Your task to perform on an android device: turn vacation reply on in the gmail app Image 0: 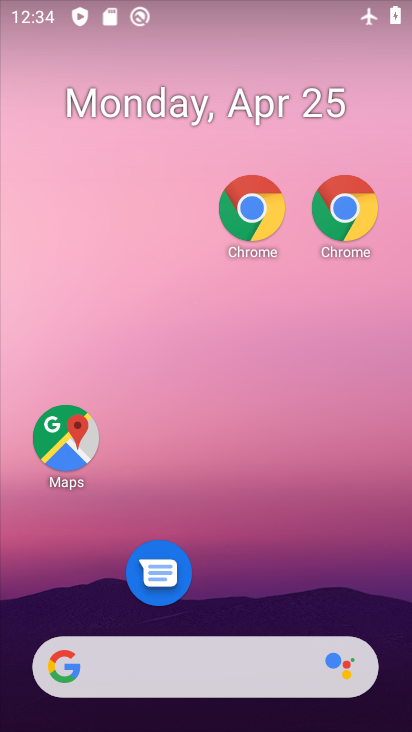
Step 0: drag from (257, 646) to (212, 90)
Your task to perform on an android device: turn vacation reply on in the gmail app Image 1: 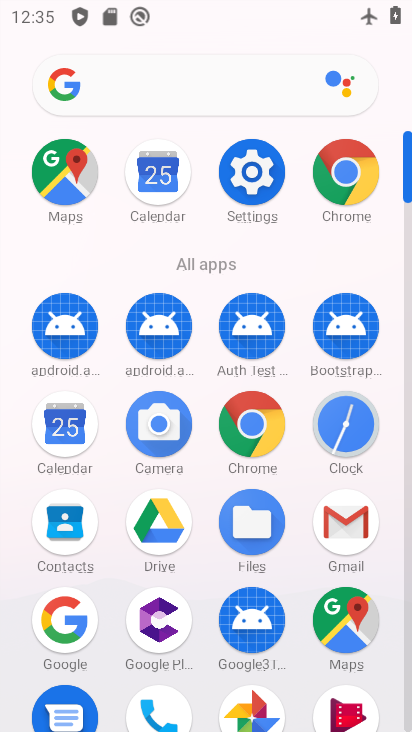
Step 1: click (344, 535)
Your task to perform on an android device: turn vacation reply on in the gmail app Image 2: 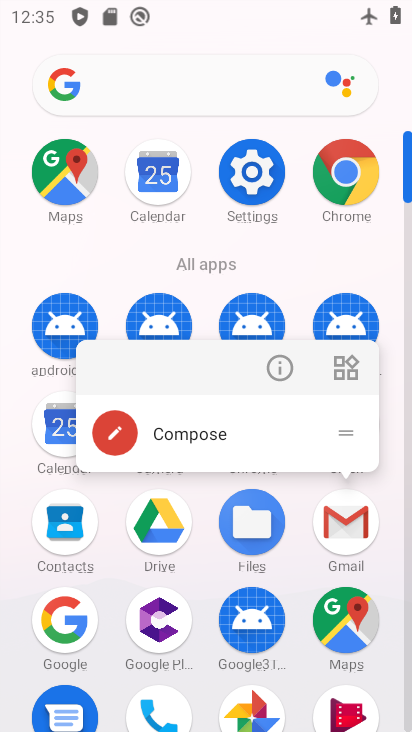
Step 2: click (356, 523)
Your task to perform on an android device: turn vacation reply on in the gmail app Image 3: 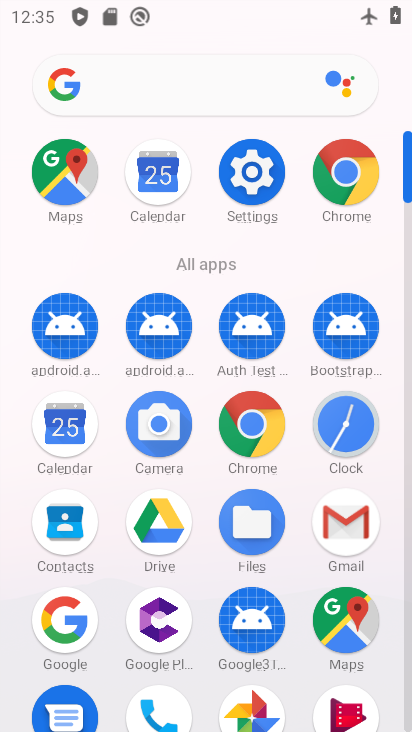
Step 3: click (342, 529)
Your task to perform on an android device: turn vacation reply on in the gmail app Image 4: 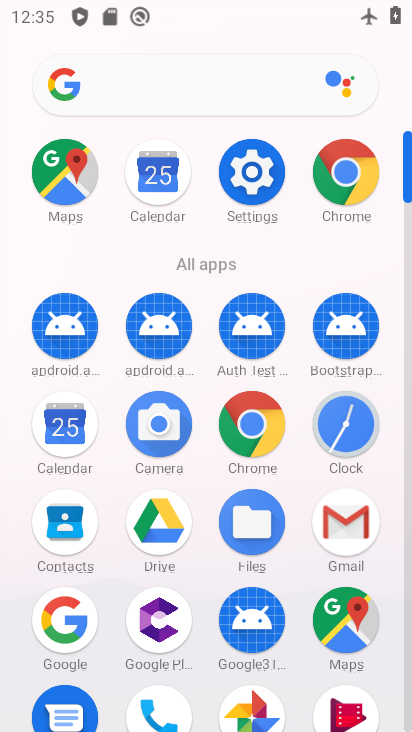
Step 4: click (344, 517)
Your task to perform on an android device: turn vacation reply on in the gmail app Image 5: 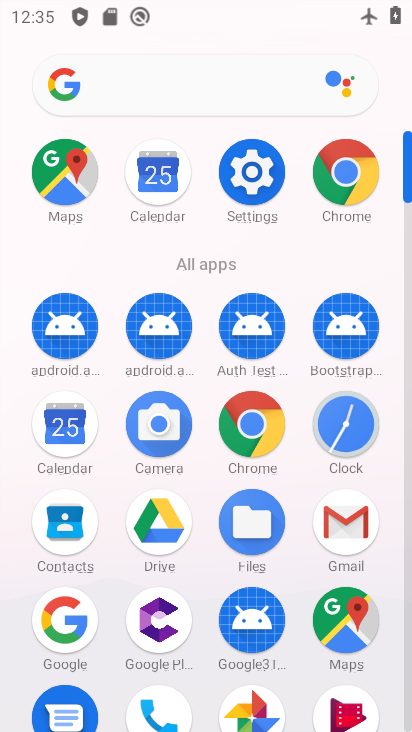
Step 5: click (342, 516)
Your task to perform on an android device: turn vacation reply on in the gmail app Image 6: 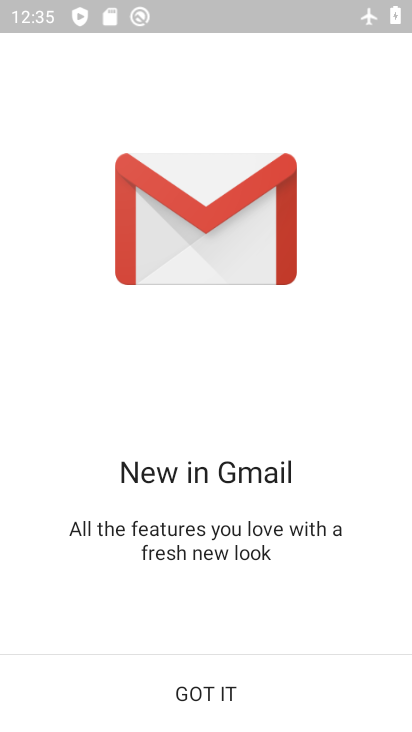
Step 6: click (202, 690)
Your task to perform on an android device: turn vacation reply on in the gmail app Image 7: 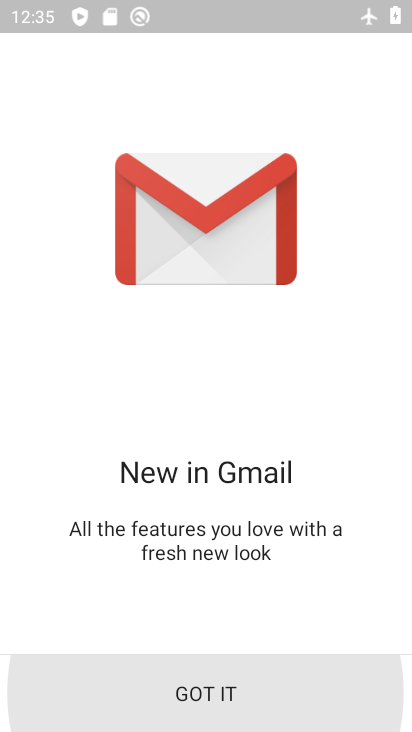
Step 7: click (199, 697)
Your task to perform on an android device: turn vacation reply on in the gmail app Image 8: 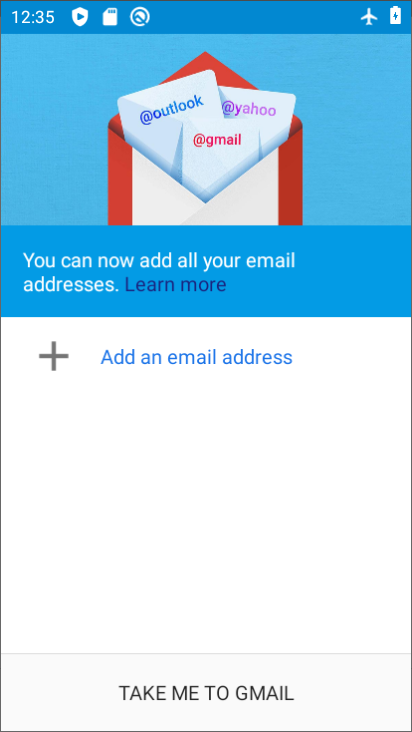
Step 8: click (209, 692)
Your task to perform on an android device: turn vacation reply on in the gmail app Image 9: 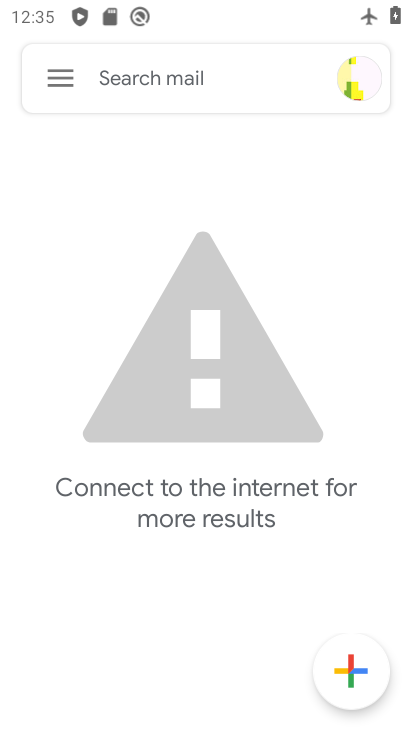
Step 9: drag from (61, 78) to (91, 163)
Your task to perform on an android device: turn vacation reply on in the gmail app Image 10: 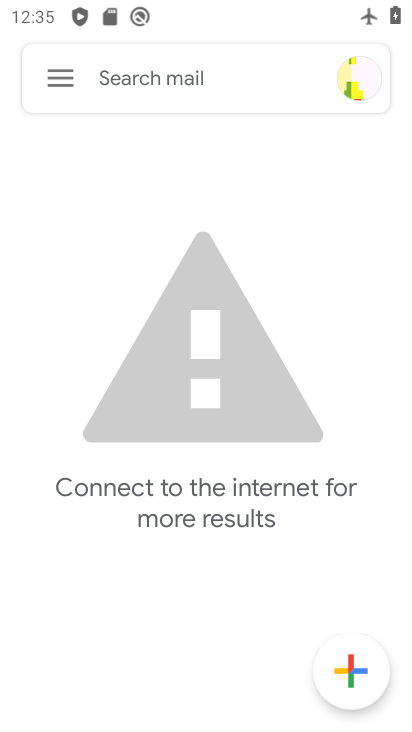
Step 10: click (55, 72)
Your task to perform on an android device: turn vacation reply on in the gmail app Image 11: 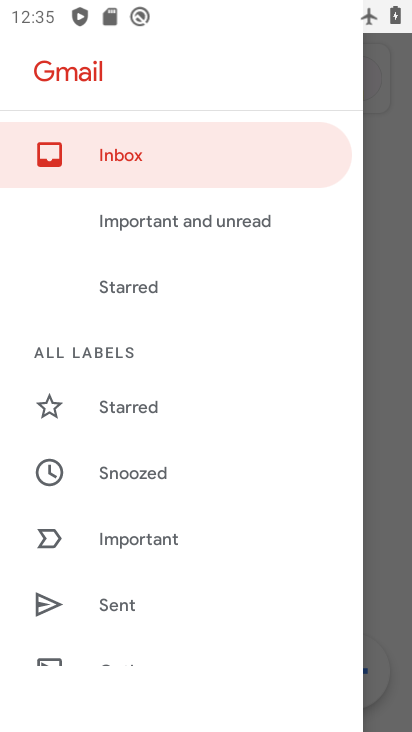
Step 11: drag from (191, 587) to (142, 193)
Your task to perform on an android device: turn vacation reply on in the gmail app Image 12: 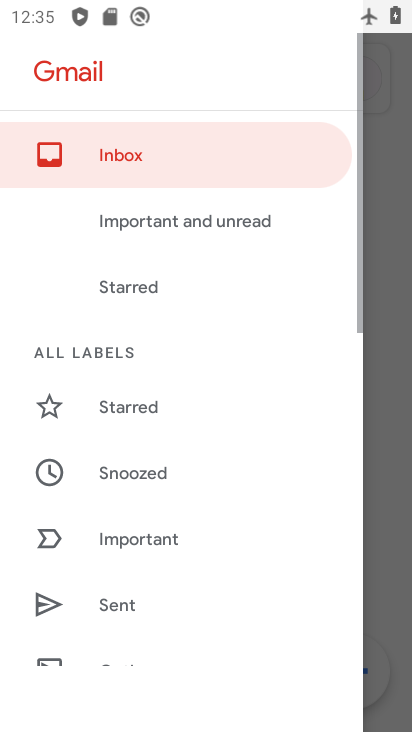
Step 12: drag from (159, 474) to (154, 217)
Your task to perform on an android device: turn vacation reply on in the gmail app Image 13: 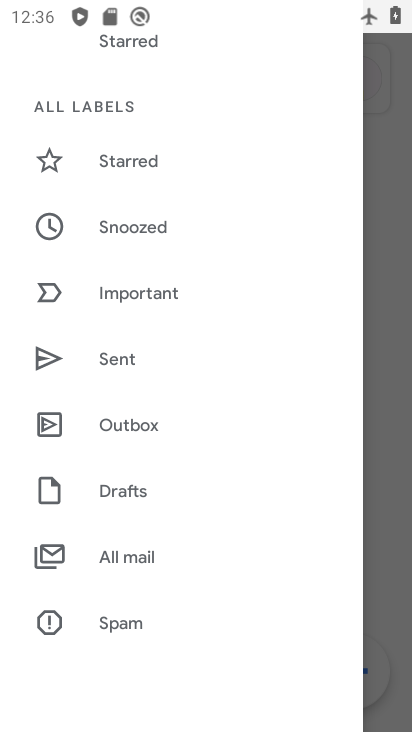
Step 13: drag from (172, 534) to (145, 70)
Your task to perform on an android device: turn vacation reply on in the gmail app Image 14: 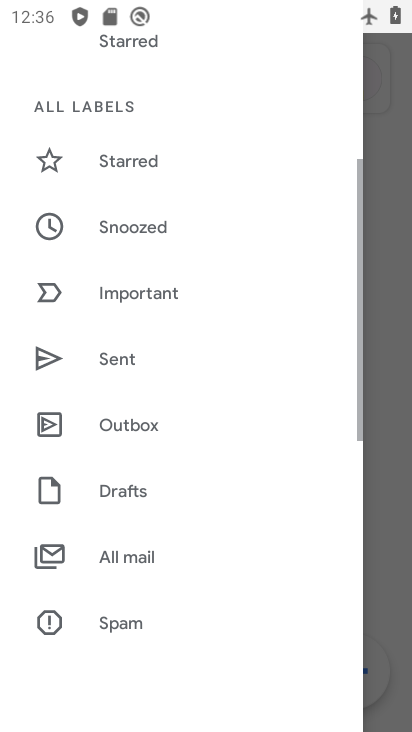
Step 14: drag from (171, 323) to (201, 60)
Your task to perform on an android device: turn vacation reply on in the gmail app Image 15: 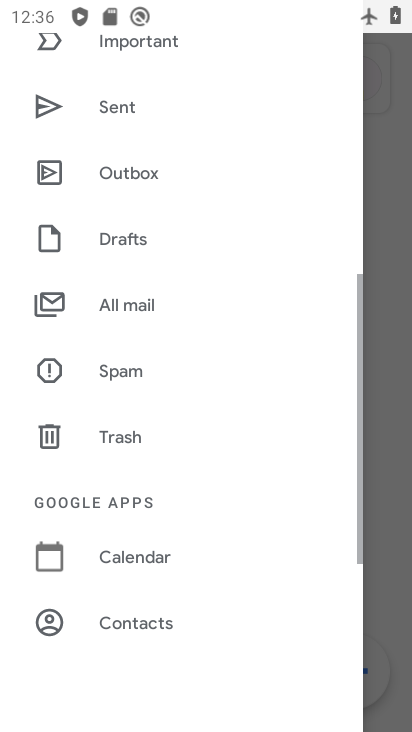
Step 15: drag from (164, 289) to (164, 28)
Your task to perform on an android device: turn vacation reply on in the gmail app Image 16: 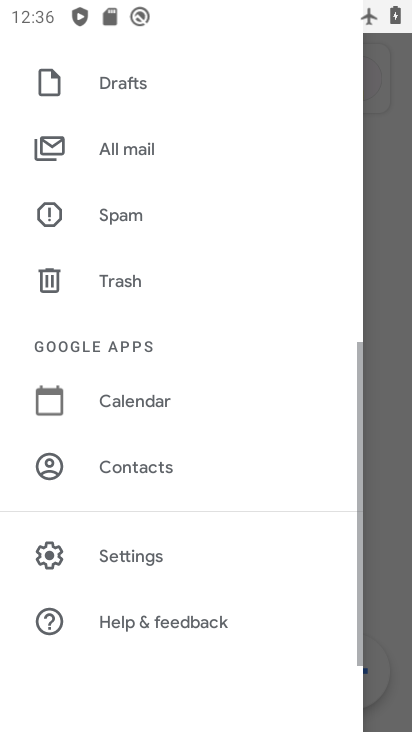
Step 16: drag from (201, 502) to (156, 113)
Your task to perform on an android device: turn vacation reply on in the gmail app Image 17: 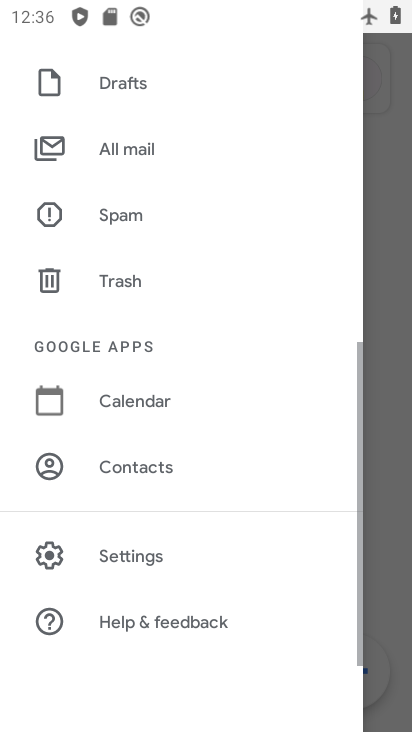
Step 17: drag from (124, 516) to (114, 105)
Your task to perform on an android device: turn vacation reply on in the gmail app Image 18: 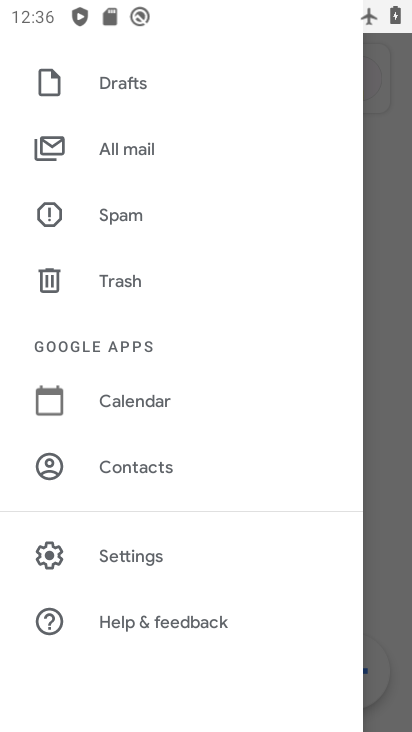
Step 18: click (132, 557)
Your task to perform on an android device: turn vacation reply on in the gmail app Image 19: 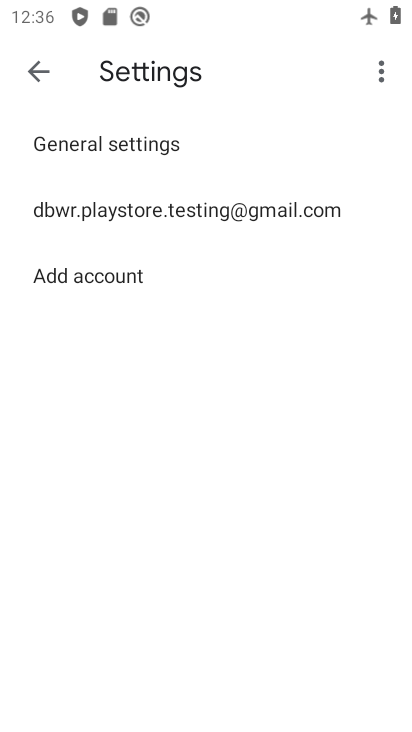
Step 19: click (177, 205)
Your task to perform on an android device: turn vacation reply on in the gmail app Image 20: 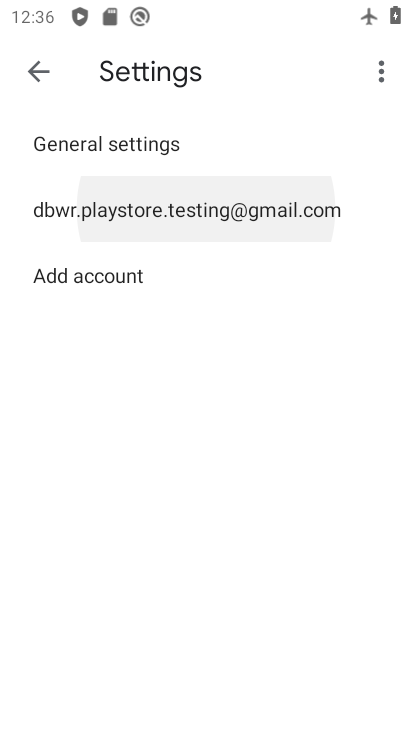
Step 20: click (176, 209)
Your task to perform on an android device: turn vacation reply on in the gmail app Image 21: 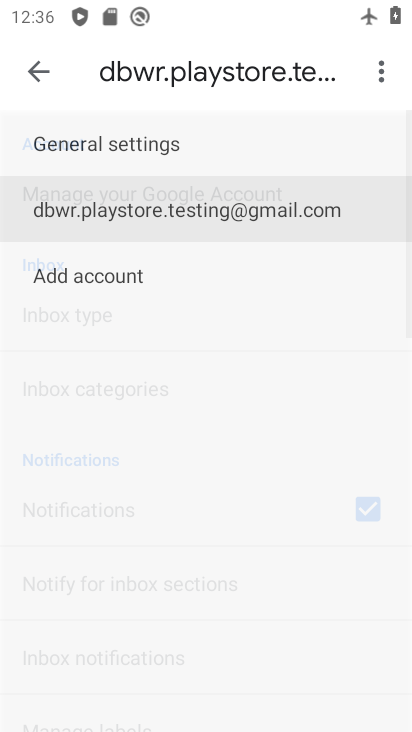
Step 21: click (175, 208)
Your task to perform on an android device: turn vacation reply on in the gmail app Image 22: 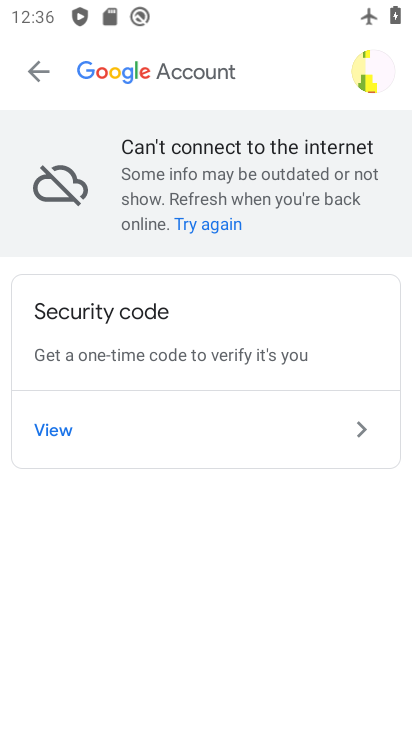
Step 22: click (33, 73)
Your task to perform on an android device: turn vacation reply on in the gmail app Image 23: 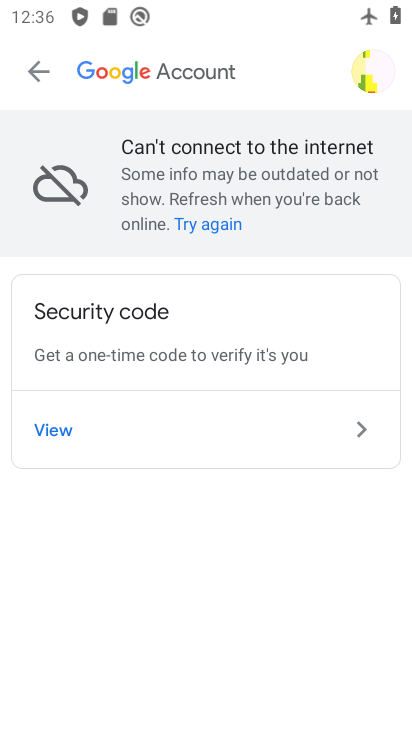
Step 23: click (37, 68)
Your task to perform on an android device: turn vacation reply on in the gmail app Image 24: 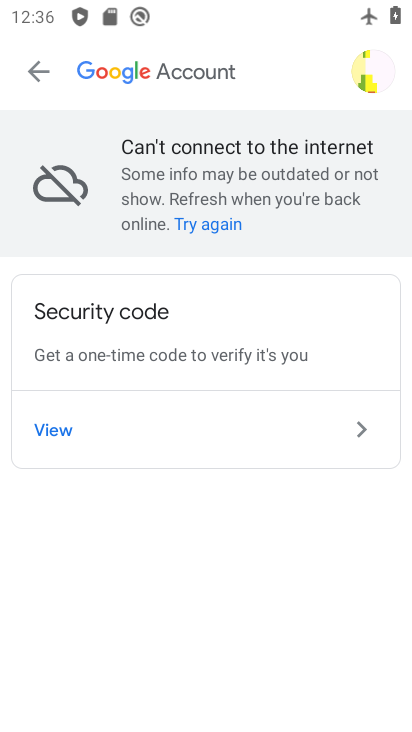
Step 24: click (37, 68)
Your task to perform on an android device: turn vacation reply on in the gmail app Image 25: 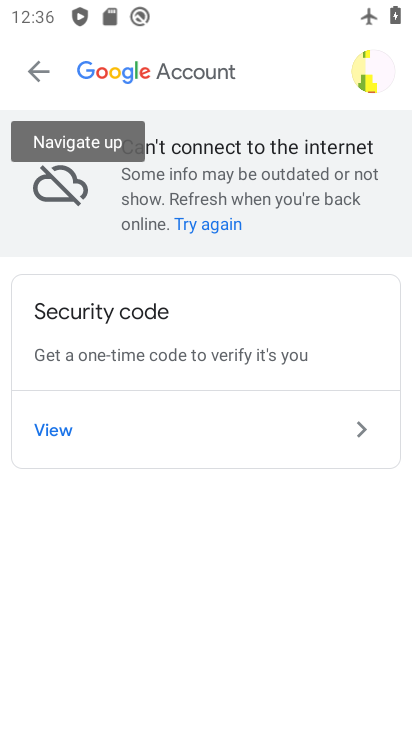
Step 25: click (37, 68)
Your task to perform on an android device: turn vacation reply on in the gmail app Image 26: 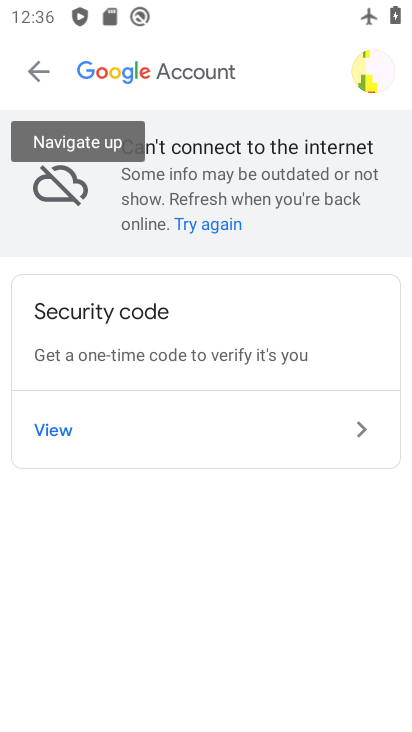
Step 26: click (37, 68)
Your task to perform on an android device: turn vacation reply on in the gmail app Image 27: 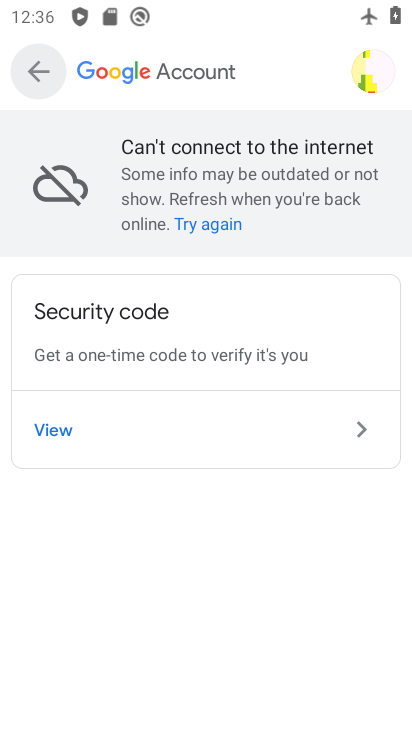
Step 27: click (37, 68)
Your task to perform on an android device: turn vacation reply on in the gmail app Image 28: 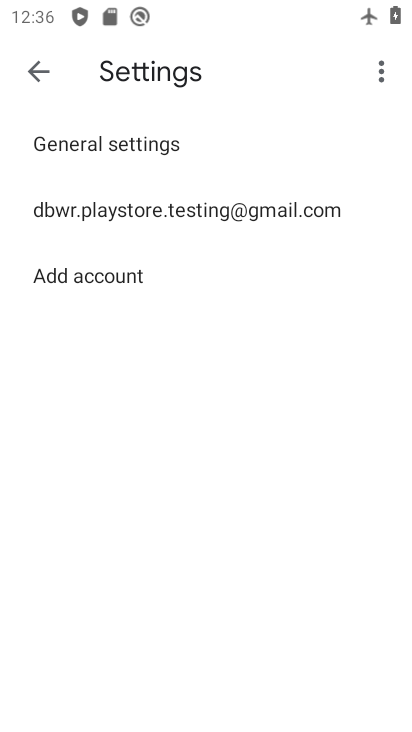
Step 28: click (136, 201)
Your task to perform on an android device: turn vacation reply on in the gmail app Image 29: 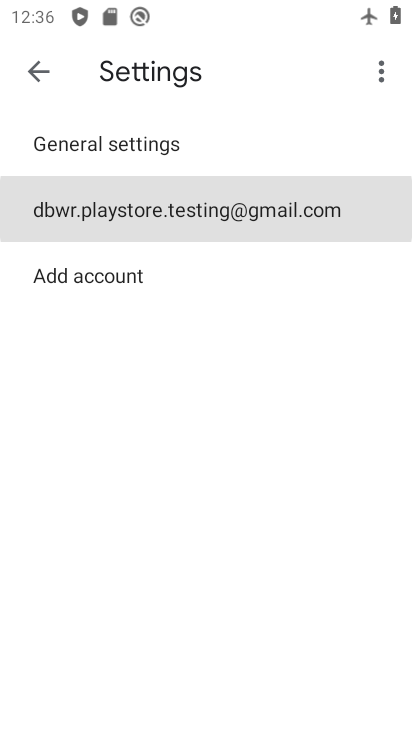
Step 29: click (142, 205)
Your task to perform on an android device: turn vacation reply on in the gmail app Image 30: 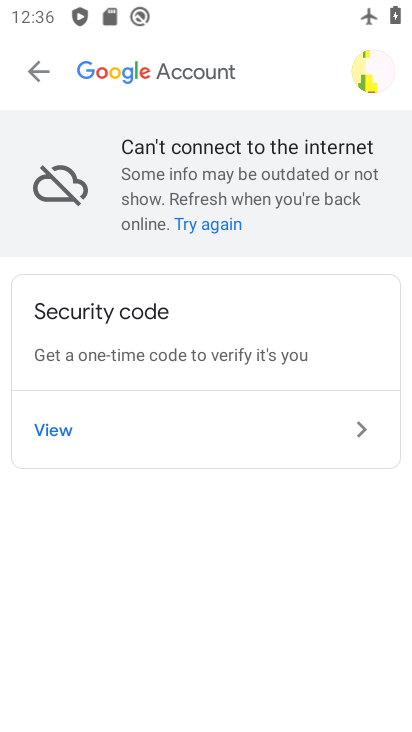
Step 30: click (33, 69)
Your task to perform on an android device: turn vacation reply on in the gmail app Image 31: 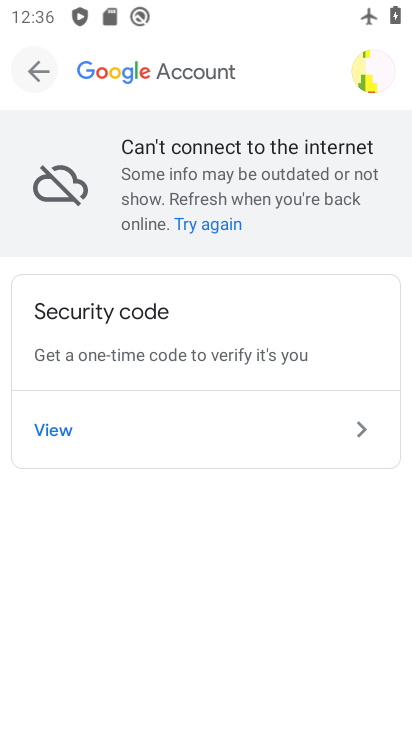
Step 31: click (32, 68)
Your task to perform on an android device: turn vacation reply on in the gmail app Image 32: 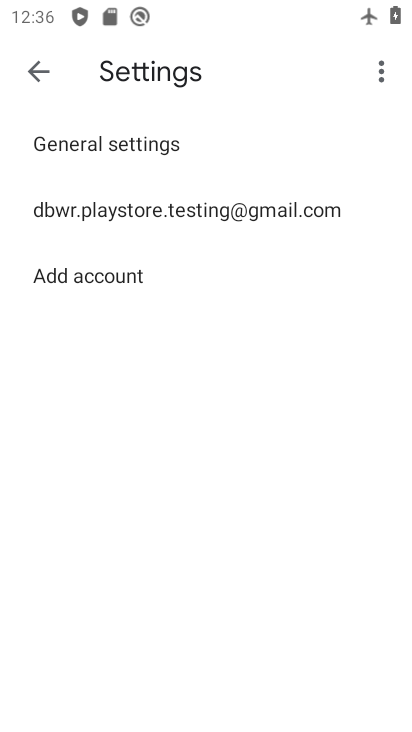
Step 32: click (153, 211)
Your task to perform on an android device: turn vacation reply on in the gmail app Image 33: 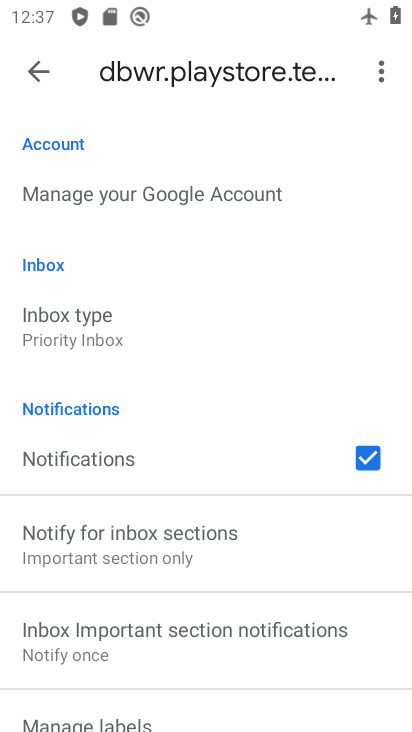
Step 33: drag from (124, 594) to (69, 34)
Your task to perform on an android device: turn vacation reply on in the gmail app Image 34: 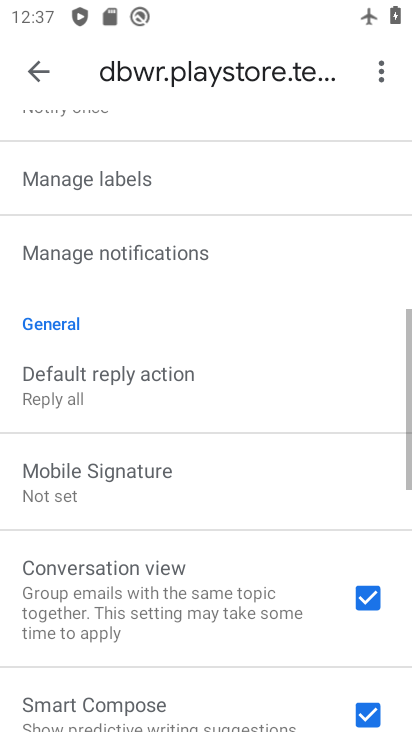
Step 34: drag from (144, 517) to (120, 20)
Your task to perform on an android device: turn vacation reply on in the gmail app Image 35: 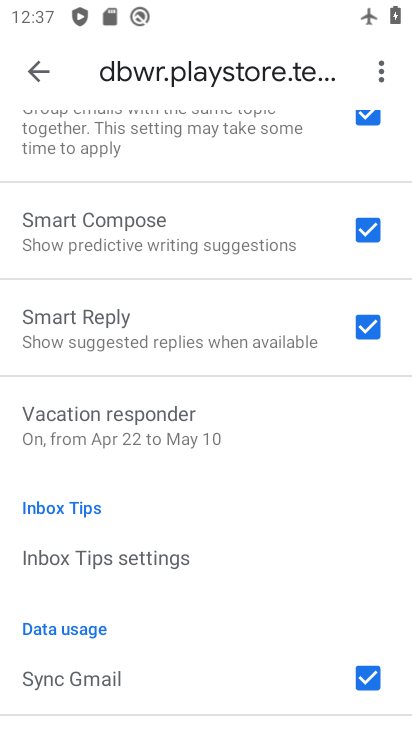
Step 35: click (113, 421)
Your task to perform on an android device: turn vacation reply on in the gmail app Image 36: 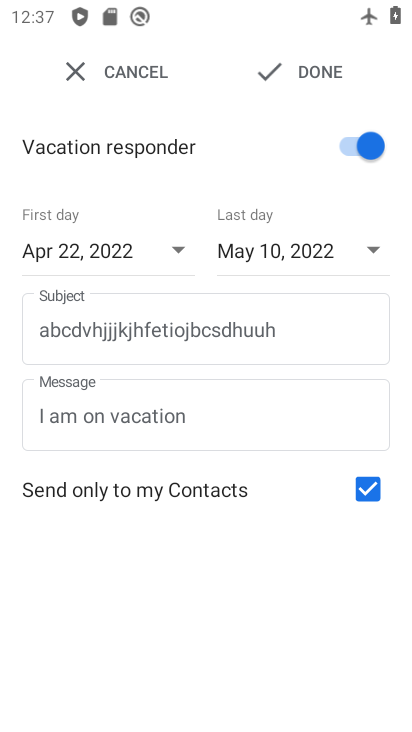
Step 36: task complete